Your task to perform on an android device: turn vacation reply on in the gmail app Image 0: 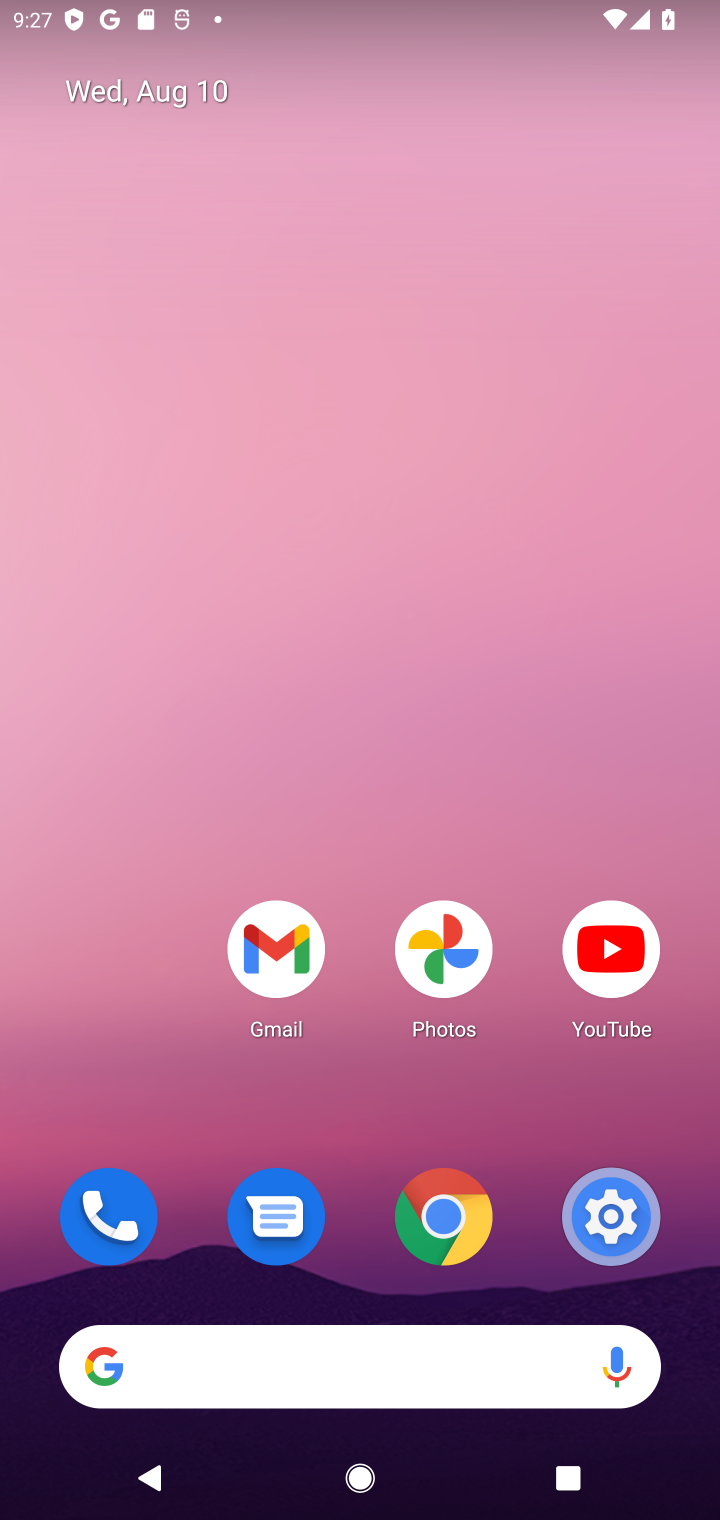
Step 0: drag from (153, 708) to (466, 217)
Your task to perform on an android device: turn vacation reply on in the gmail app Image 1: 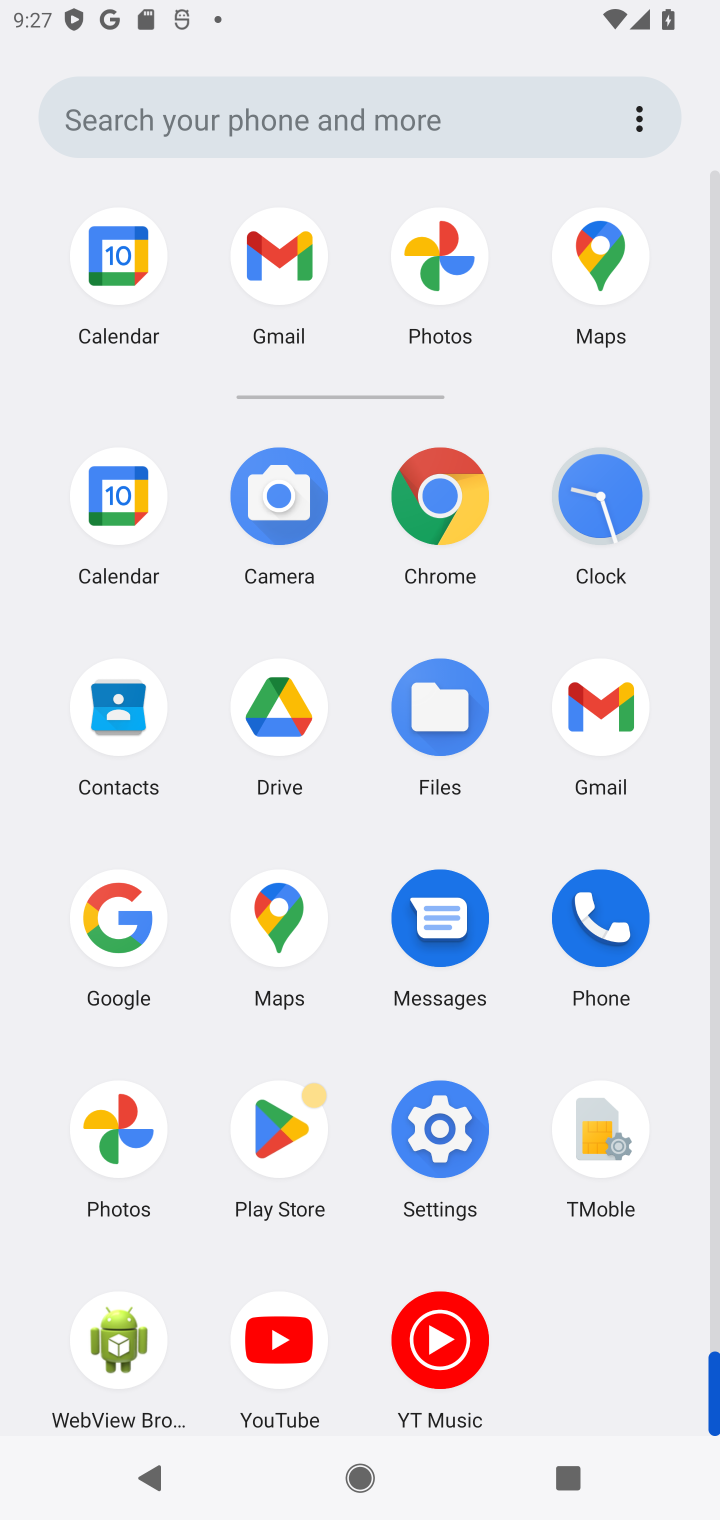
Step 1: click (612, 722)
Your task to perform on an android device: turn vacation reply on in the gmail app Image 2: 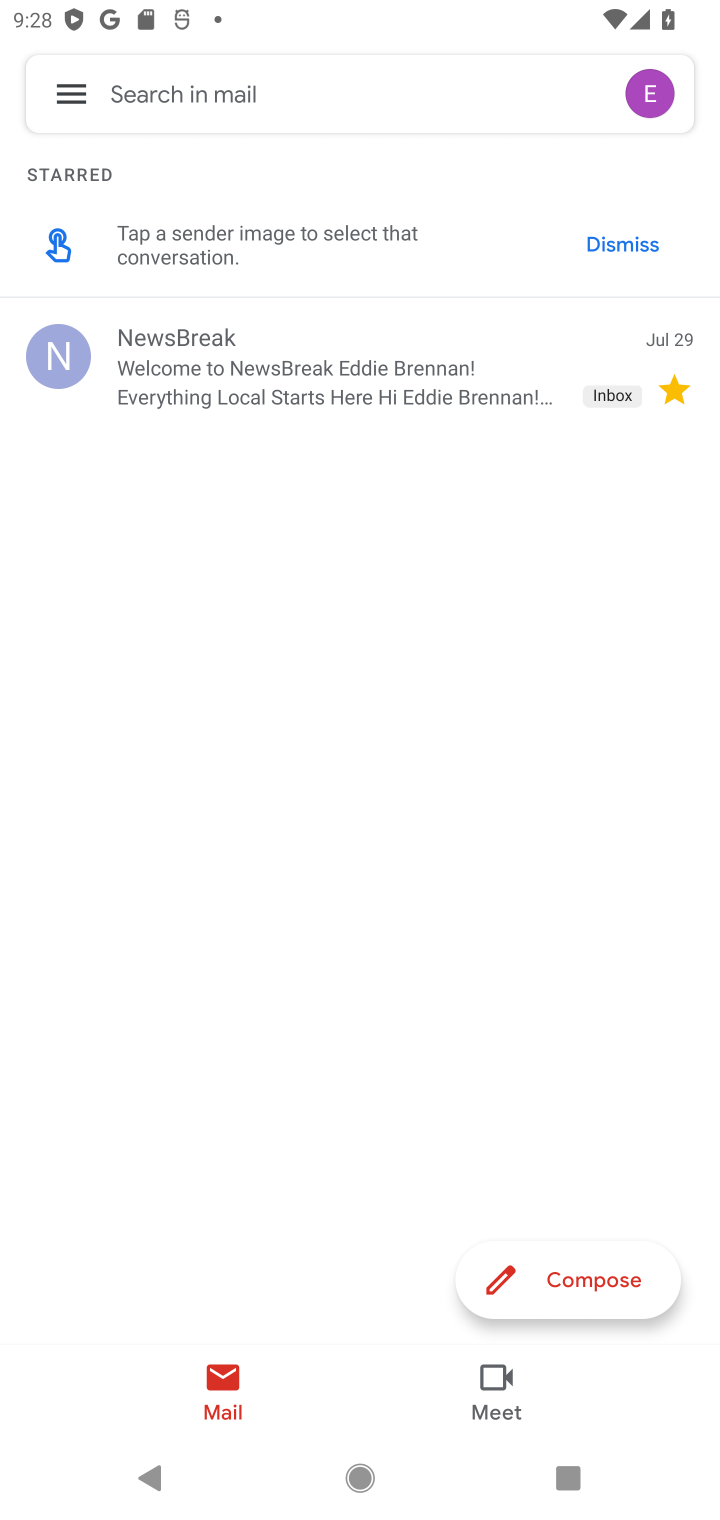
Step 2: click (75, 108)
Your task to perform on an android device: turn vacation reply on in the gmail app Image 3: 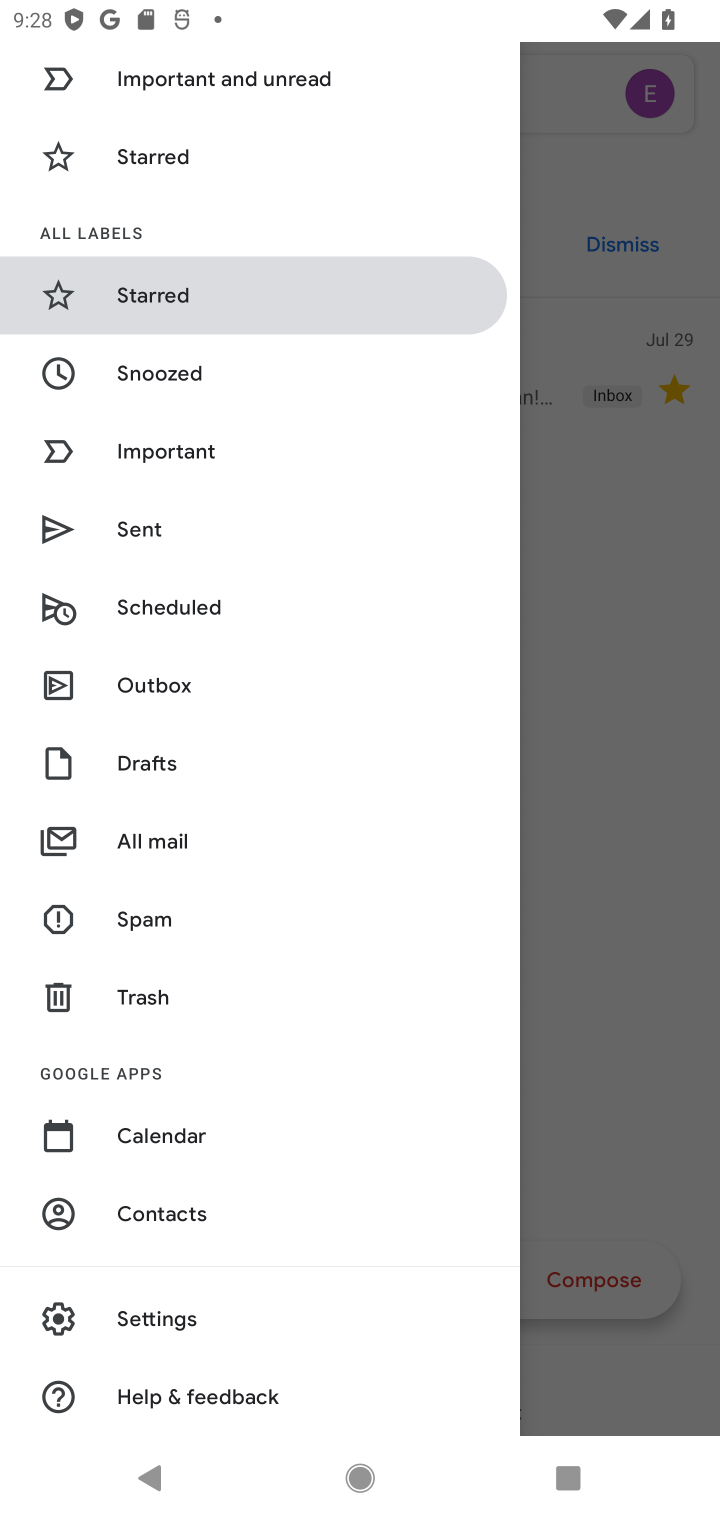
Step 3: click (155, 1332)
Your task to perform on an android device: turn vacation reply on in the gmail app Image 4: 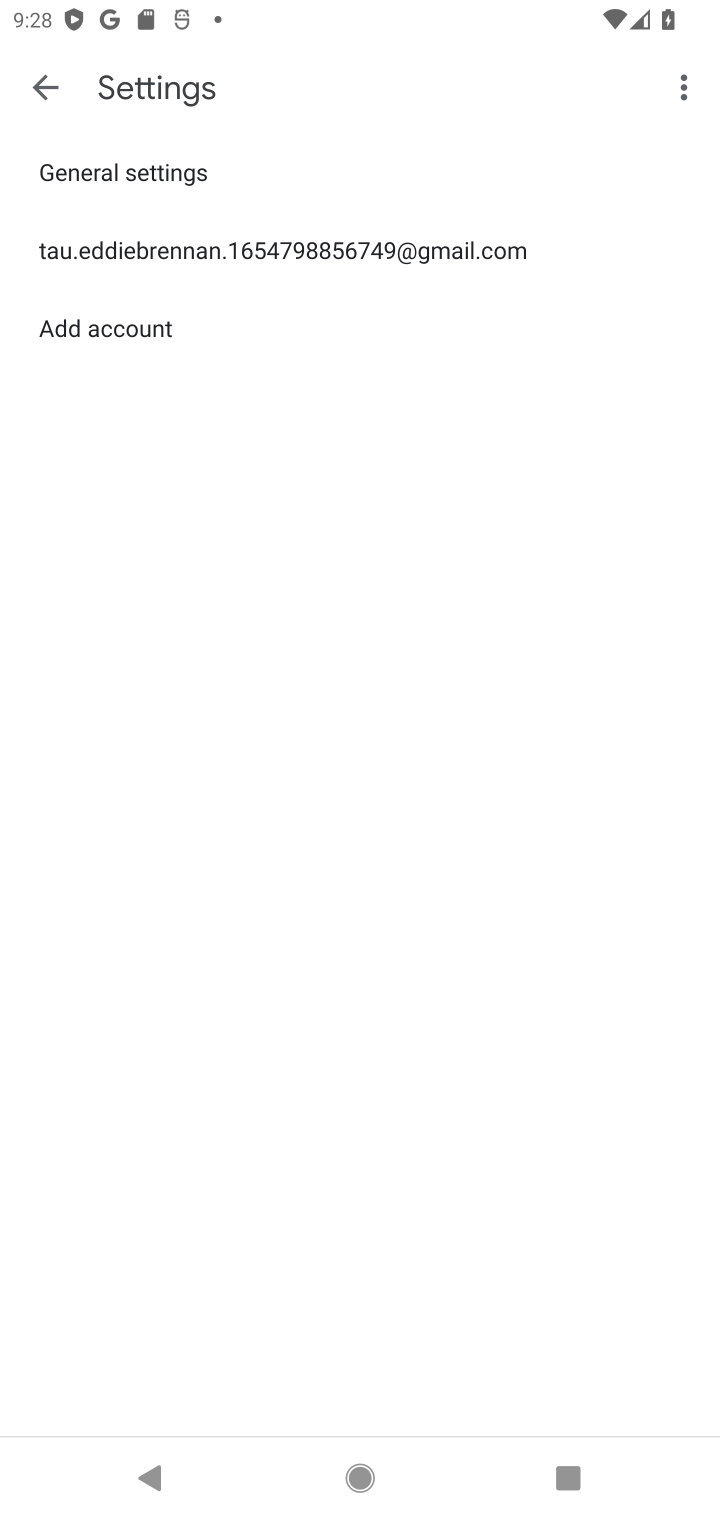
Step 4: click (244, 232)
Your task to perform on an android device: turn vacation reply on in the gmail app Image 5: 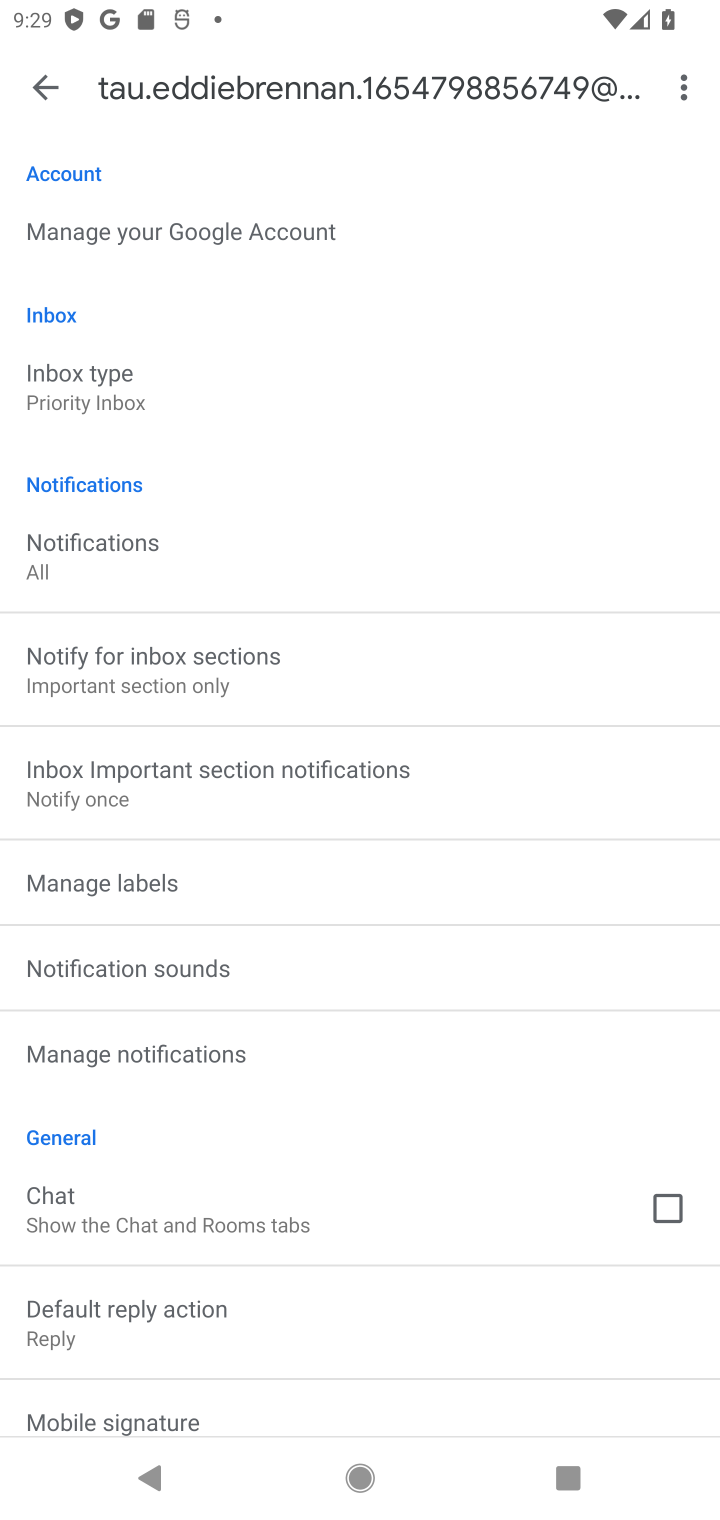
Step 5: task complete